Your task to perform on an android device: search for starred emails in the gmail app Image 0: 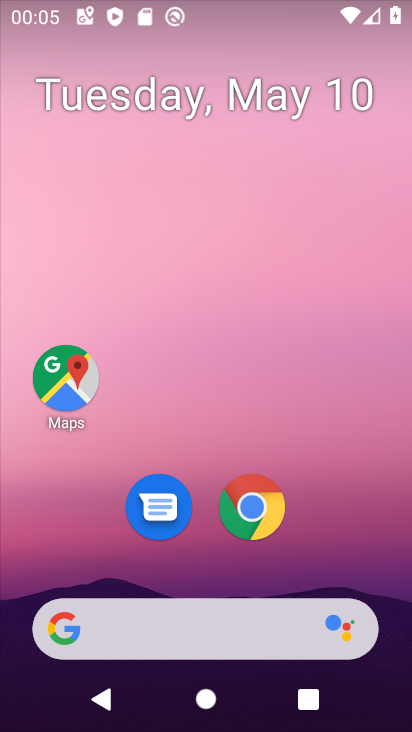
Step 0: drag from (345, 546) to (279, 46)
Your task to perform on an android device: search for starred emails in the gmail app Image 1: 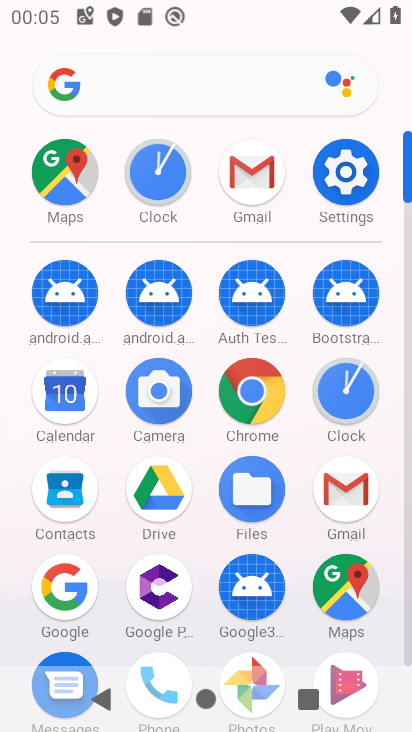
Step 1: click (270, 181)
Your task to perform on an android device: search for starred emails in the gmail app Image 2: 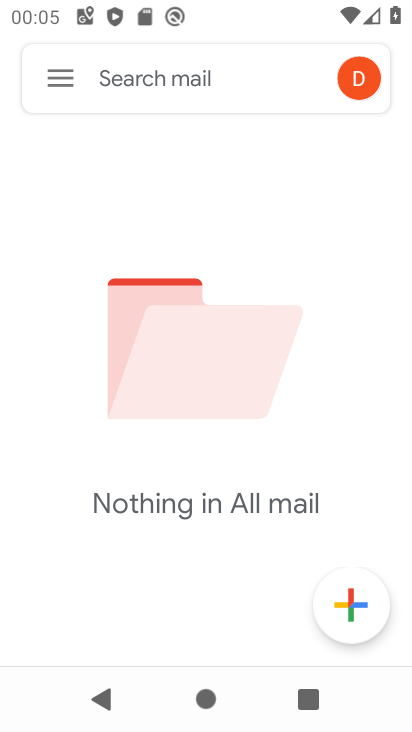
Step 2: click (70, 91)
Your task to perform on an android device: search for starred emails in the gmail app Image 3: 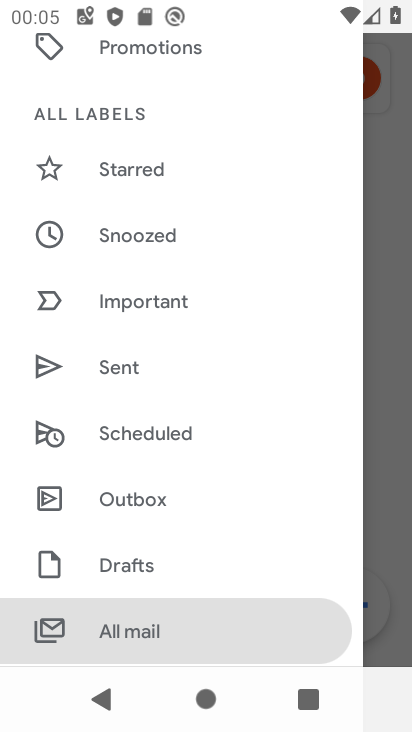
Step 3: click (140, 169)
Your task to perform on an android device: search for starred emails in the gmail app Image 4: 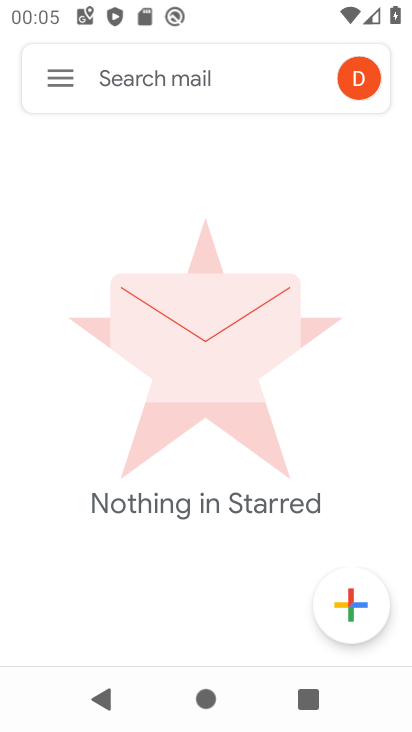
Step 4: task complete